Your task to perform on an android device: Go to Android settings Image 0: 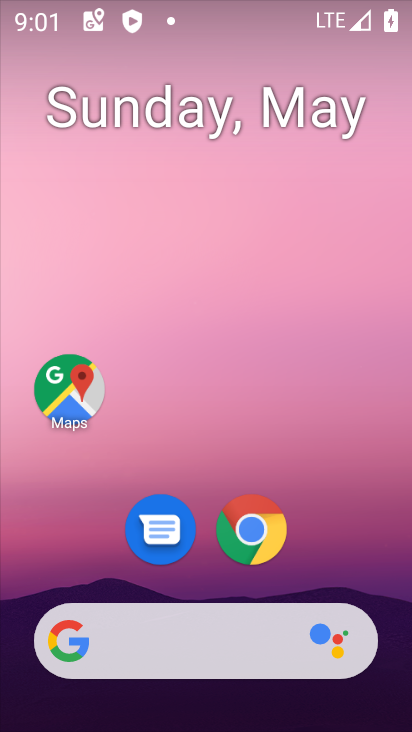
Step 0: drag from (208, 518) to (187, 1)
Your task to perform on an android device: Go to Android settings Image 1: 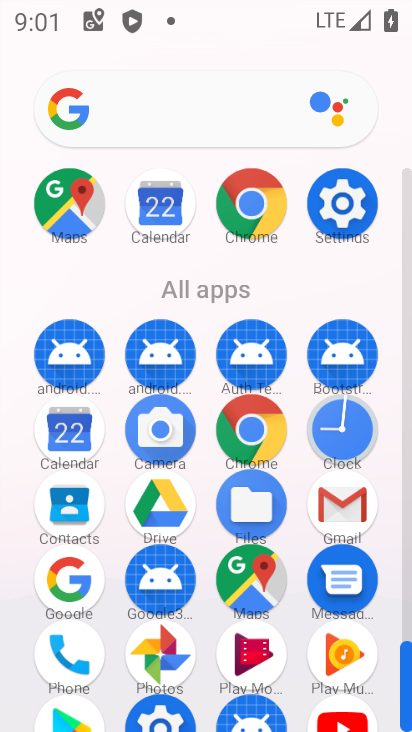
Step 1: click (349, 201)
Your task to perform on an android device: Go to Android settings Image 2: 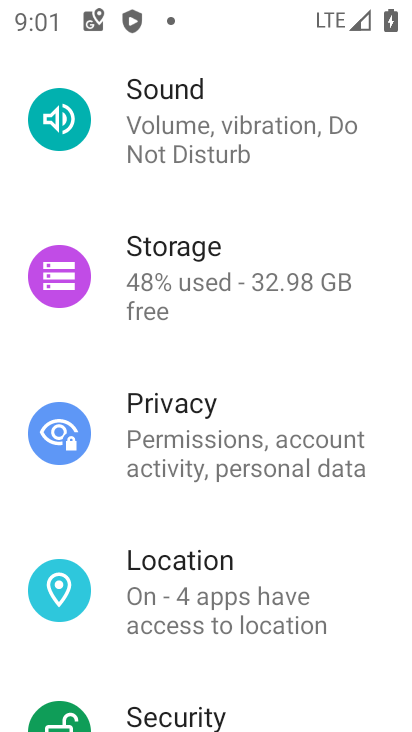
Step 2: drag from (182, 661) to (223, 386)
Your task to perform on an android device: Go to Android settings Image 3: 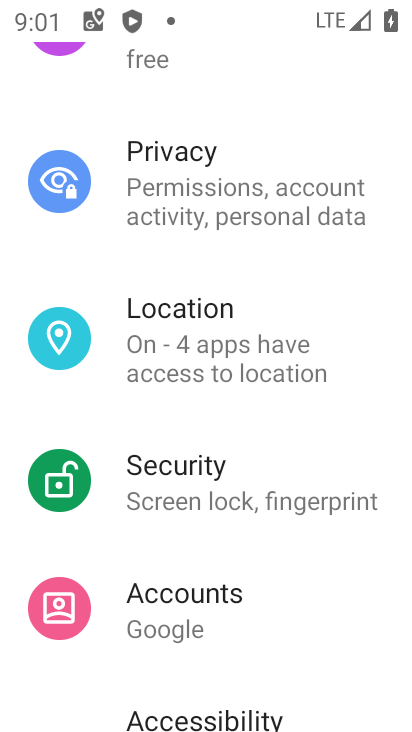
Step 3: drag from (208, 603) to (204, 383)
Your task to perform on an android device: Go to Android settings Image 4: 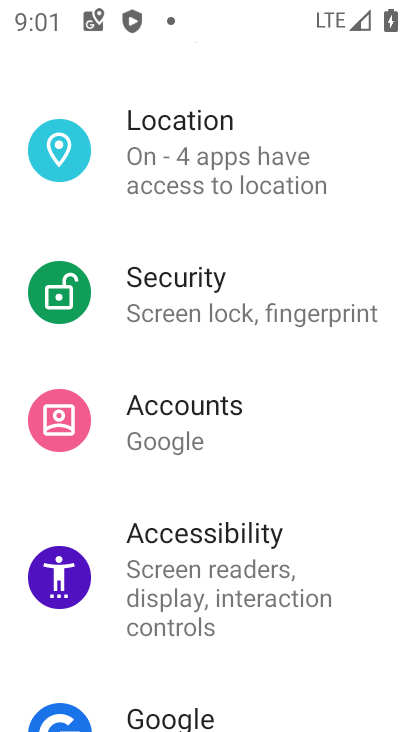
Step 4: drag from (212, 650) to (202, 444)
Your task to perform on an android device: Go to Android settings Image 5: 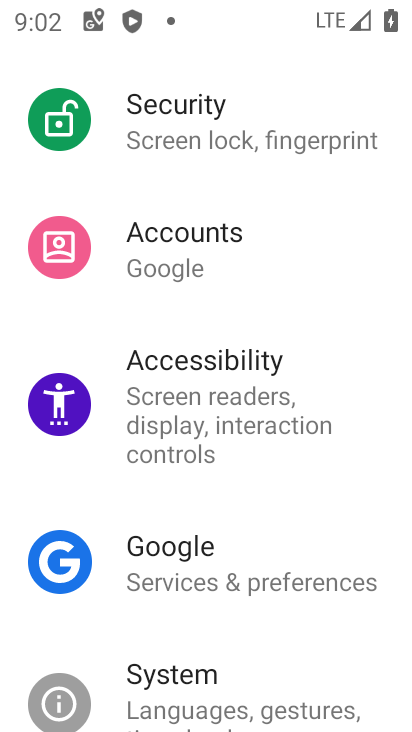
Step 5: drag from (204, 632) to (179, 388)
Your task to perform on an android device: Go to Android settings Image 6: 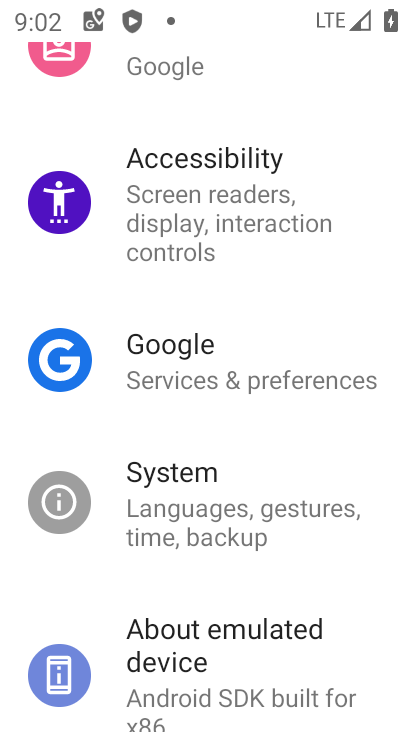
Step 6: click (179, 516)
Your task to perform on an android device: Go to Android settings Image 7: 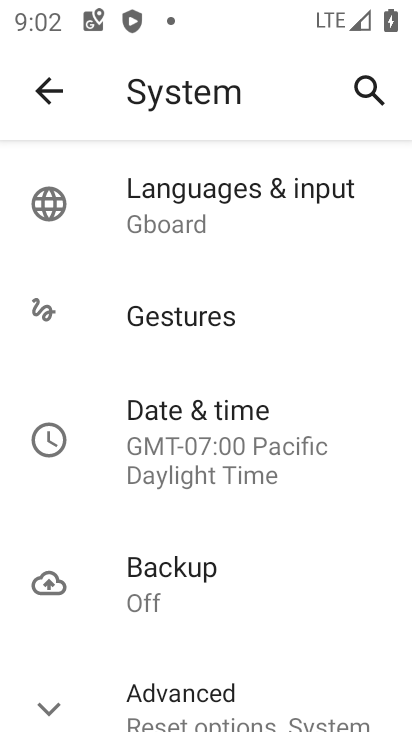
Step 7: task complete